Your task to perform on an android device: Open Amazon Image 0: 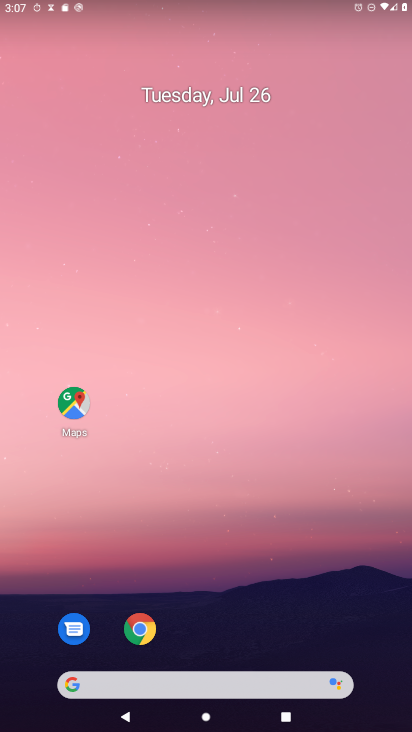
Step 0: drag from (294, 625) to (276, 11)
Your task to perform on an android device: Open Amazon Image 1: 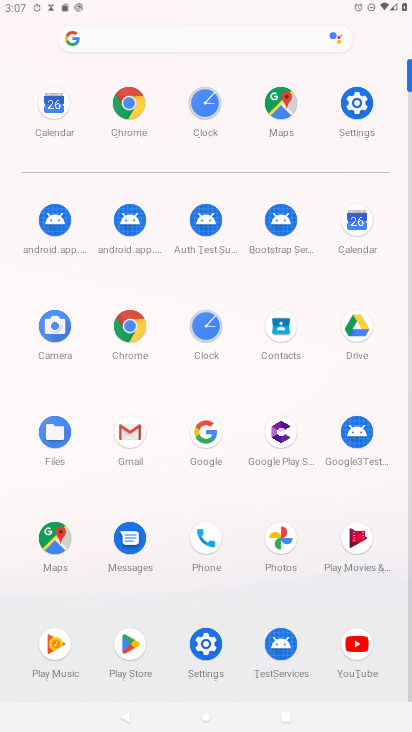
Step 1: click (131, 325)
Your task to perform on an android device: Open Amazon Image 2: 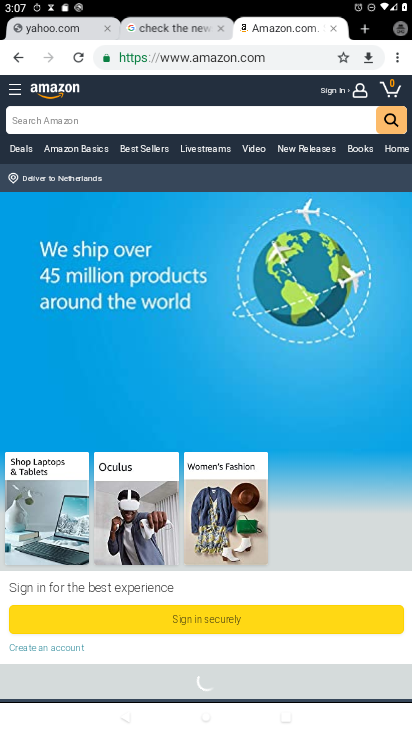
Step 2: click (397, 55)
Your task to perform on an android device: Open Amazon Image 3: 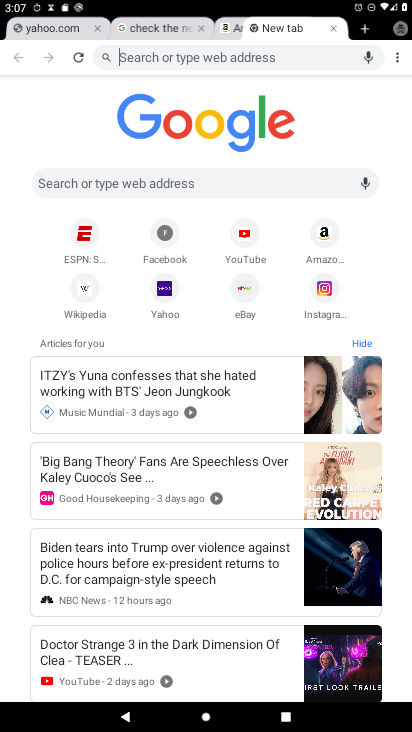
Step 3: drag from (401, 52) to (308, 57)
Your task to perform on an android device: Open Amazon Image 4: 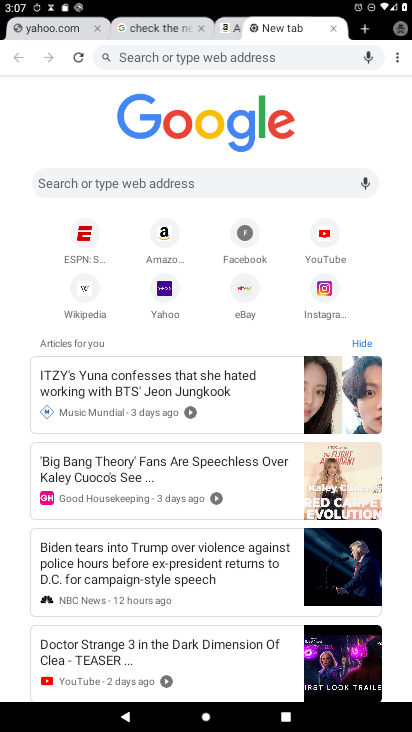
Step 4: click (162, 235)
Your task to perform on an android device: Open Amazon Image 5: 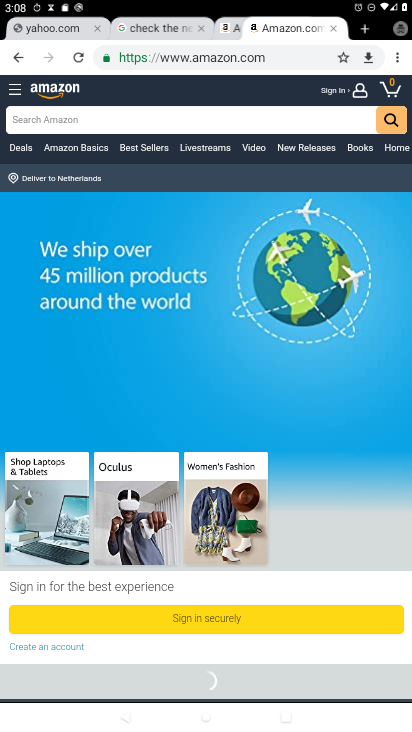
Step 5: task complete